Your task to perform on an android device: set the timer Image 0: 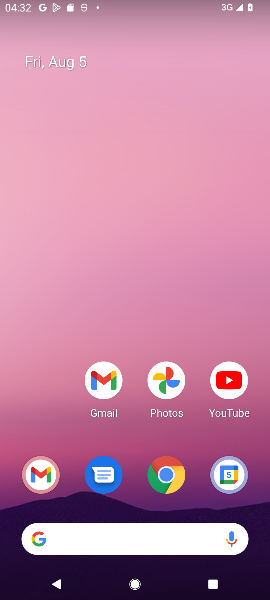
Step 0: press home button
Your task to perform on an android device: set the timer Image 1: 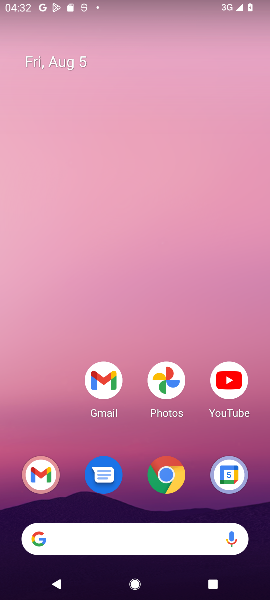
Step 1: drag from (55, 420) to (59, 205)
Your task to perform on an android device: set the timer Image 2: 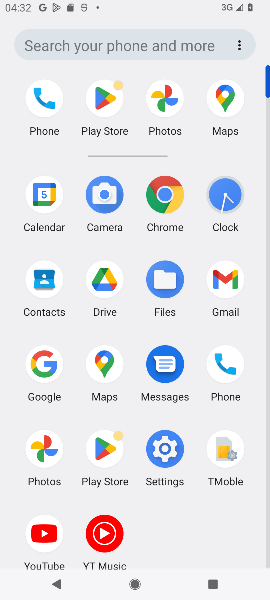
Step 2: click (227, 199)
Your task to perform on an android device: set the timer Image 3: 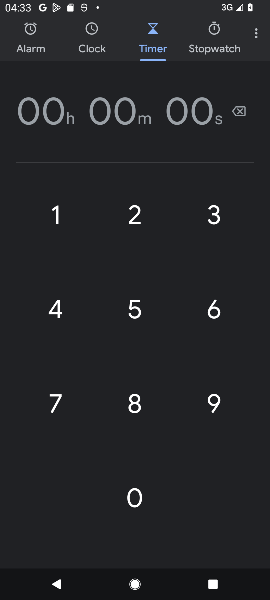
Step 3: click (138, 306)
Your task to perform on an android device: set the timer Image 4: 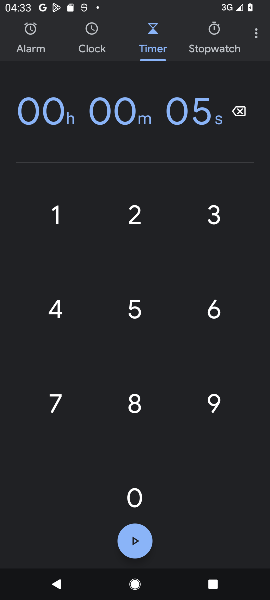
Step 4: task complete